Your task to perform on an android device: Open location settings Image 0: 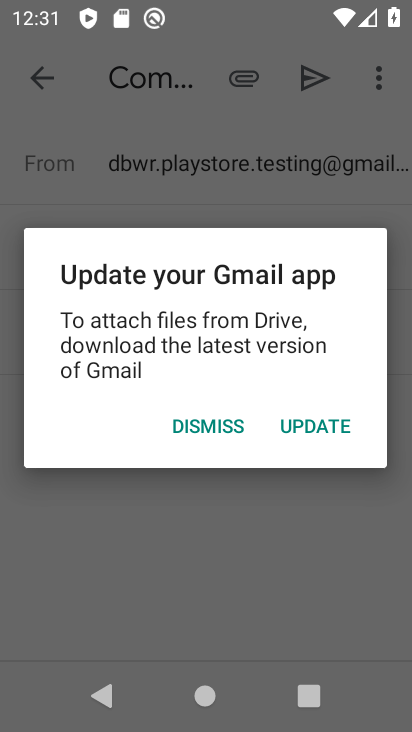
Step 0: press home button
Your task to perform on an android device: Open location settings Image 1: 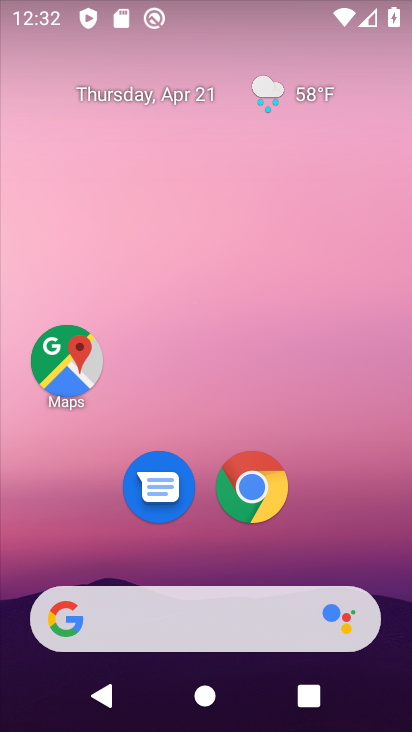
Step 1: drag from (374, 561) to (406, 57)
Your task to perform on an android device: Open location settings Image 2: 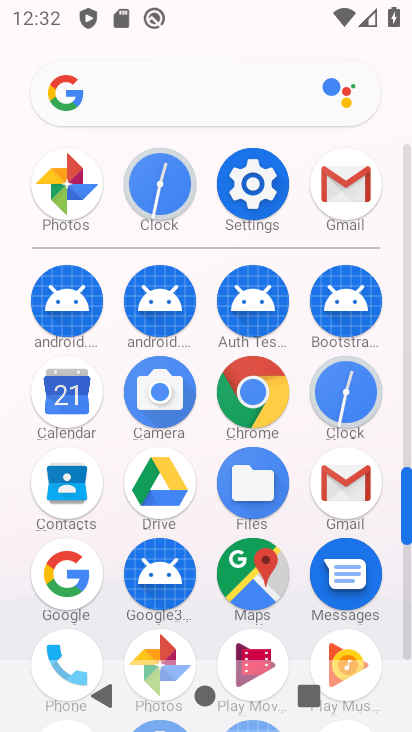
Step 2: click (260, 184)
Your task to perform on an android device: Open location settings Image 3: 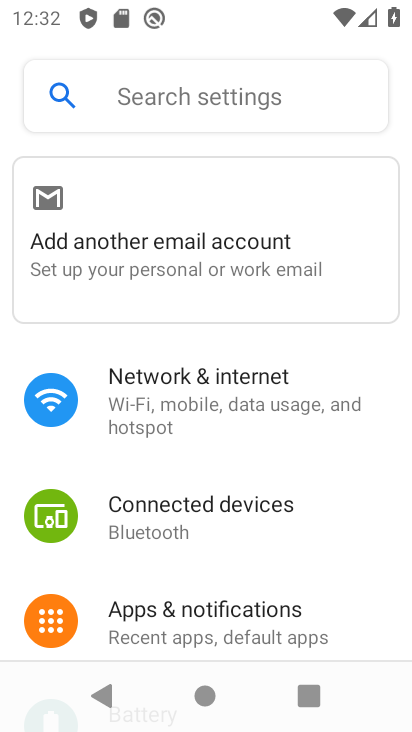
Step 3: drag from (278, 544) to (304, 338)
Your task to perform on an android device: Open location settings Image 4: 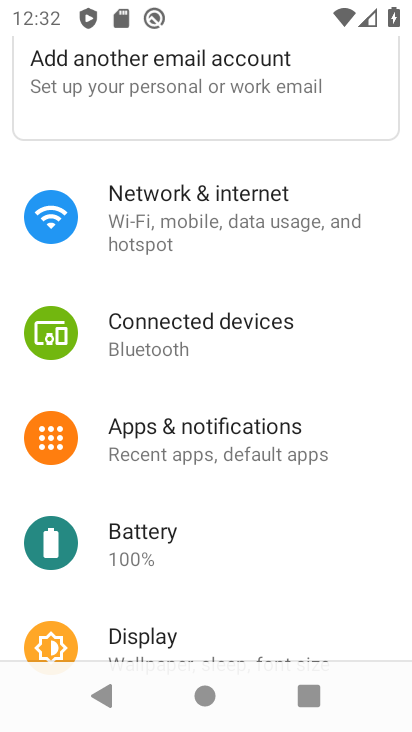
Step 4: drag from (275, 503) to (301, 189)
Your task to perform on an android device: Open location settings Image 5: 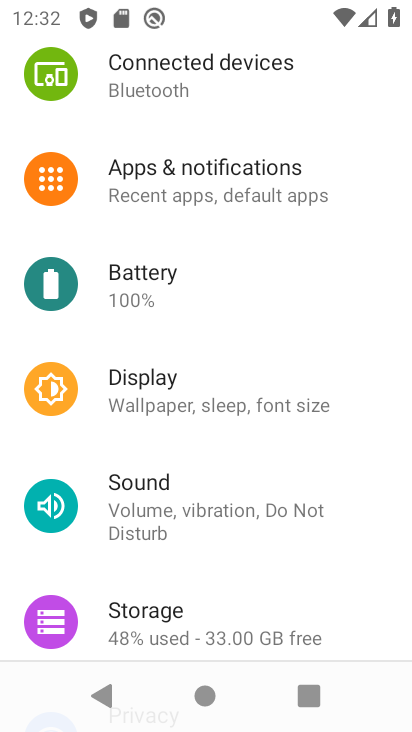
Step 5: drag from (194, 541) to (217, 187)
Your task to perform on an android device: Open location settings Image 6: 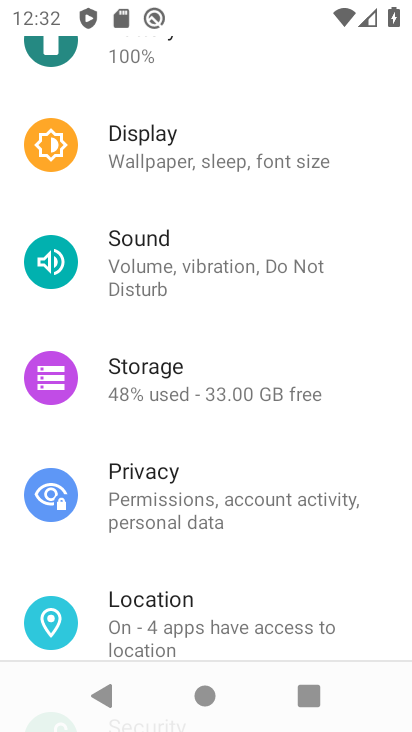
Step 6: click (124, 618)
Your task to perform on an android device: Open location settings Image 7: 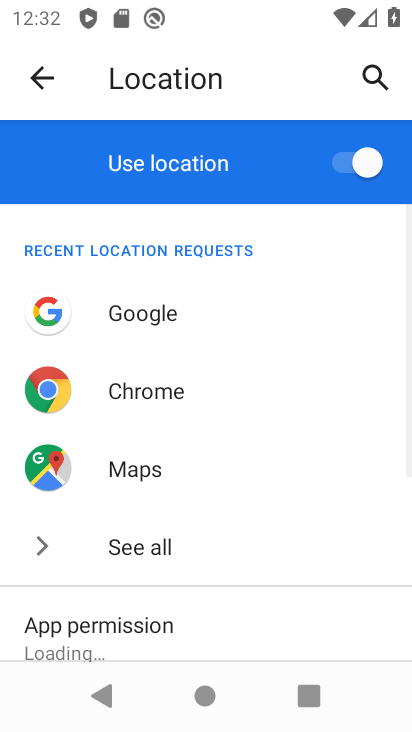
Step 7: task complete